Your task to perform on an android device: Show me productivity apps on the Play Store Image 0: 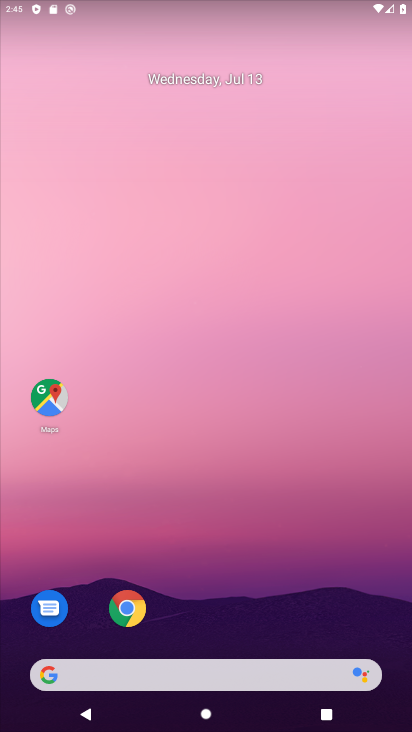
Step 0: drag from (232, 661) to (324, 187)
Your task to perform on an android device: Show me productivity apps on the Play Store Image 1: 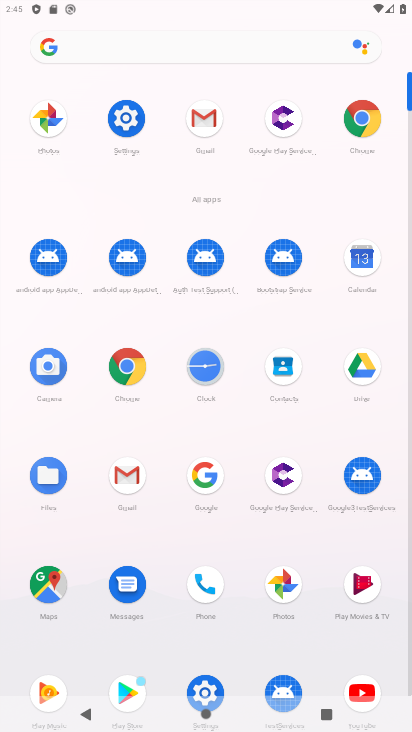
Step 1: click (122, 687)
Your task to perform on an android device: Show me productivity apps on the Play Store Image 2: 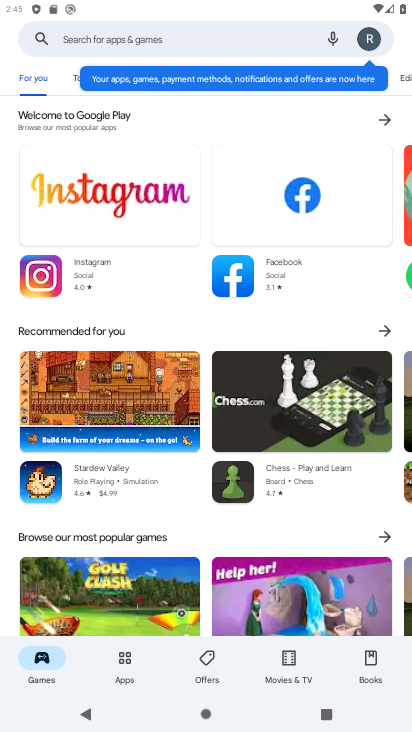
Step 2: click (123, 665)
Your task to perform on an android device: Show me productivity apps on the Play Store Image 3: 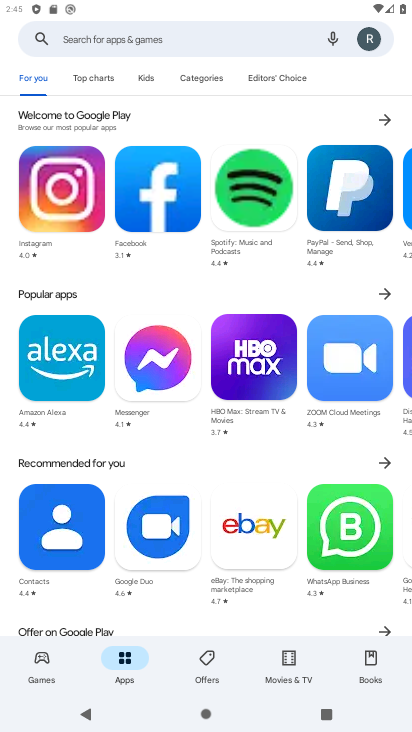
Step 3: click (222, 83)
Your task to perform on an android device: Show me productivity apps on the Play Store Image 4: 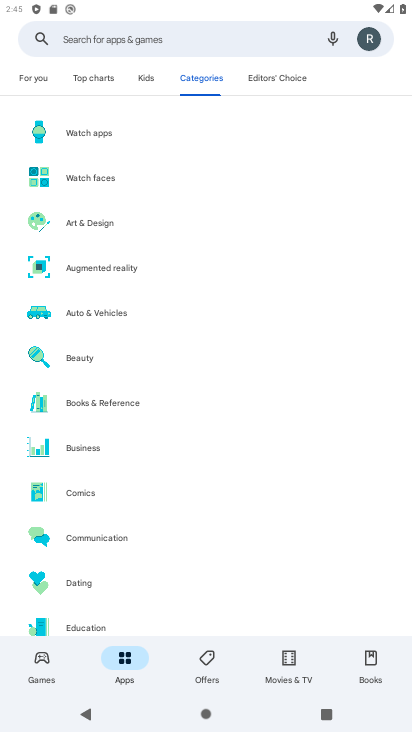
Step 4: drag from (151, 575) to (278, 87)
Your task to perform on an android device: Show me productivity apps on the Play Store Image 5: 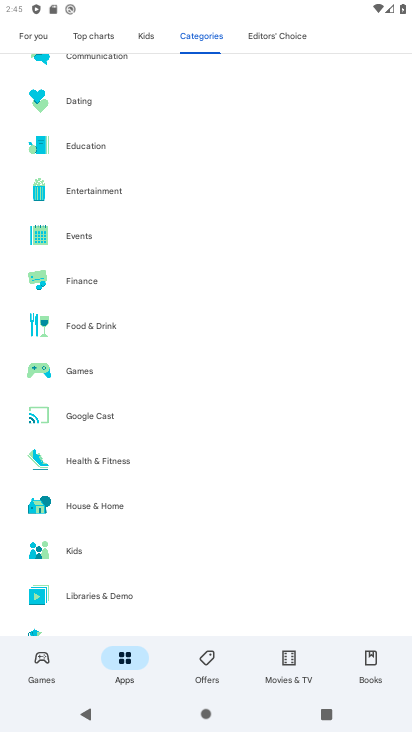
Step 5: drag from (145, 599) to (234, 106)
Your task to perform on an android device: Show me productivity apps on the Play Store Image 6: 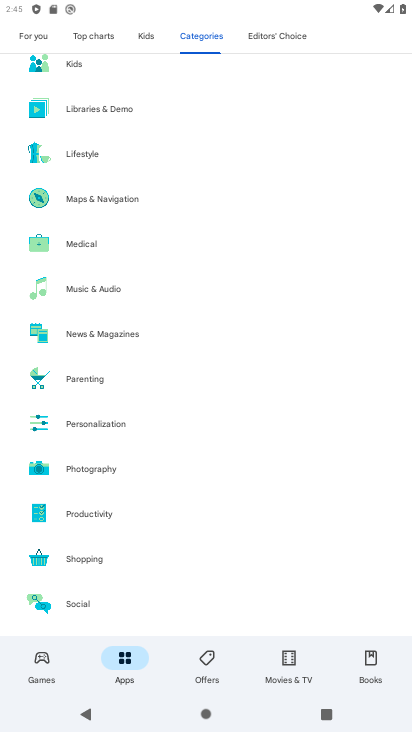
Step 6: click (106, 512)
Your task to perform on an android device: Show me productivity apps on the Play Store Image 7: 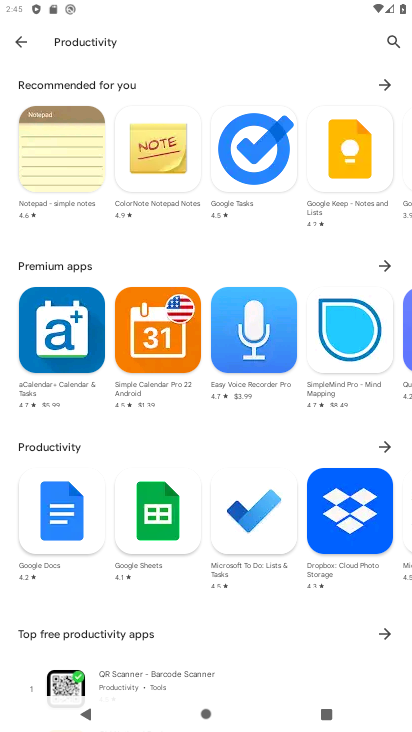
Step 7: task complete